Your task to perform on an android device: turn off sleep mode Image 0: 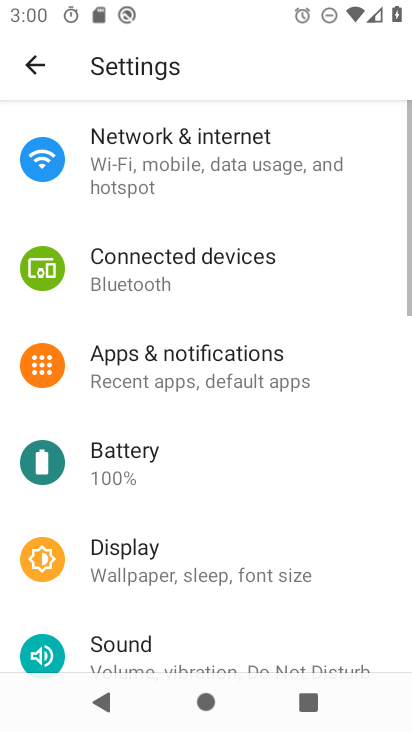
Step 0: drag from (233, 517) to (217, 12)
Your task to perform on an android device: turn off sleep mode Image 1: 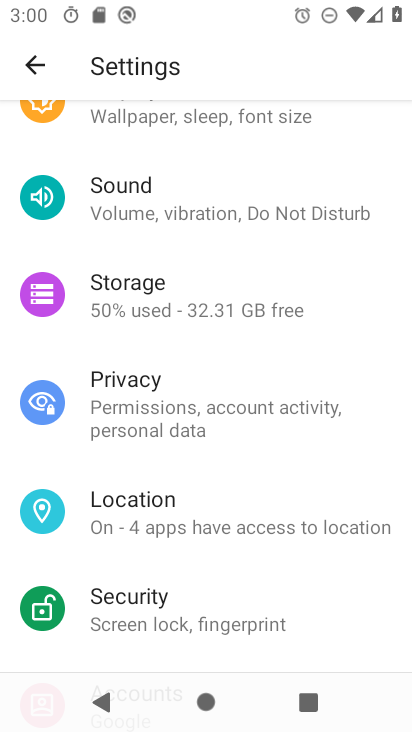
Step 1: drag from (186, 170) to (258, 430)
Your task to perform on an android device: turn off sleep mode Image 2: 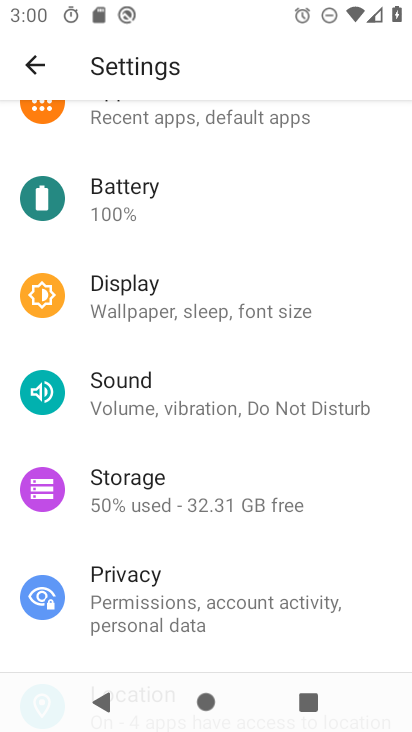
Step 2: click (159, 267)
Your task to perform on an android device: turn off sleep mode Image 3: 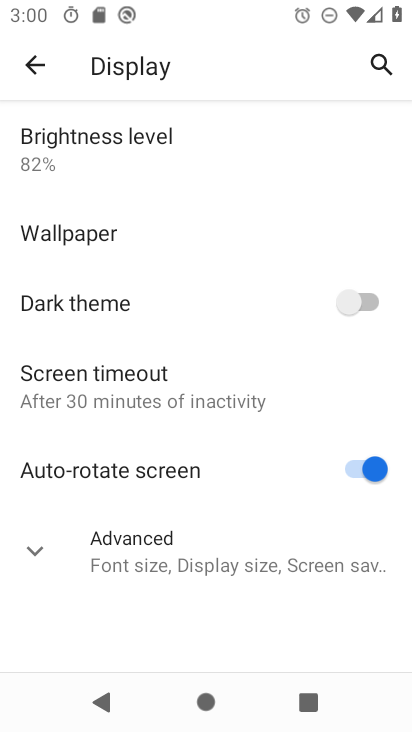
Step 3: click (148, 401)
Your task to perform on an android device: turn off sleep mode Image 4: 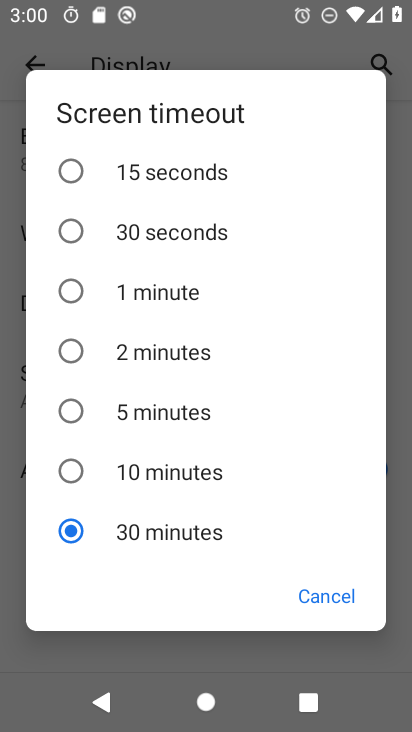
Step 4: task complete